Your task to perform on an android device: show emergency info Image 0: 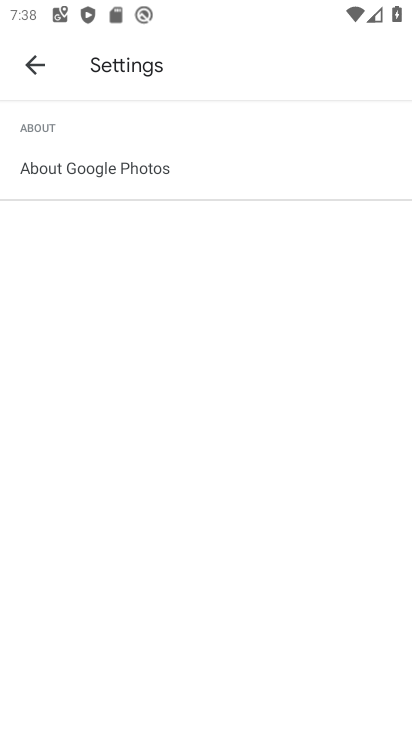
Step 0: press home button
Your task to perform on an android device: show emergency info Image 1: 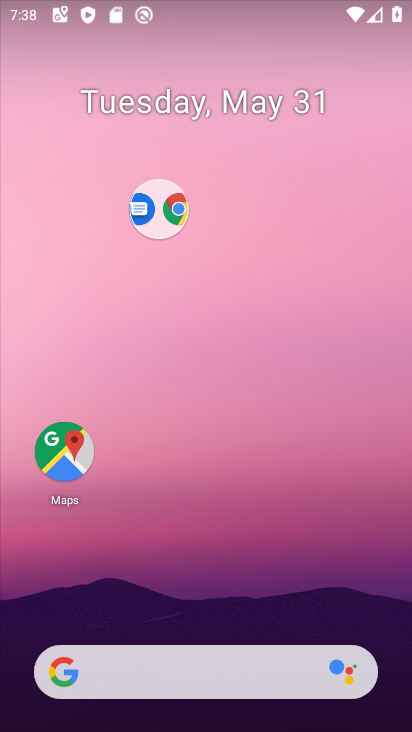
Step 1: drag from (190, 571) to (119, 280)
Your task to perform on an android device: show emergency info Image 2: 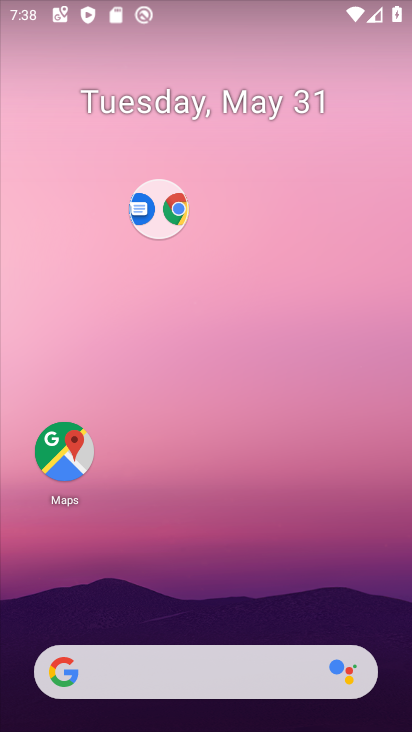
Step 2: drag from (167, 604) to (228, 134)
Your task to perform on an android device: show emergency info Image 3: 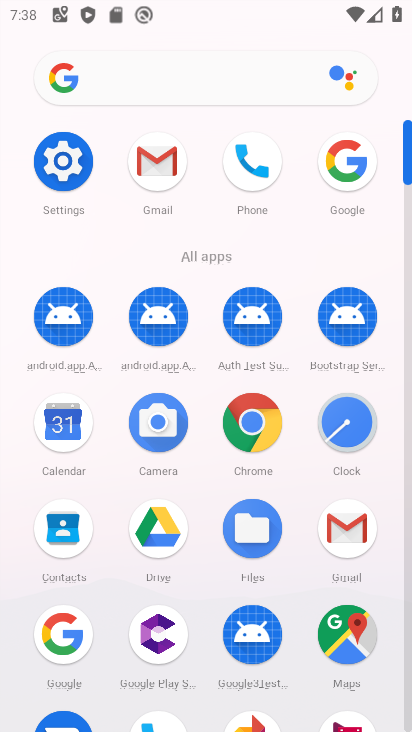
Step 3: click (49, 166)
Your task to perform on an android device: show emergency info Image 4: 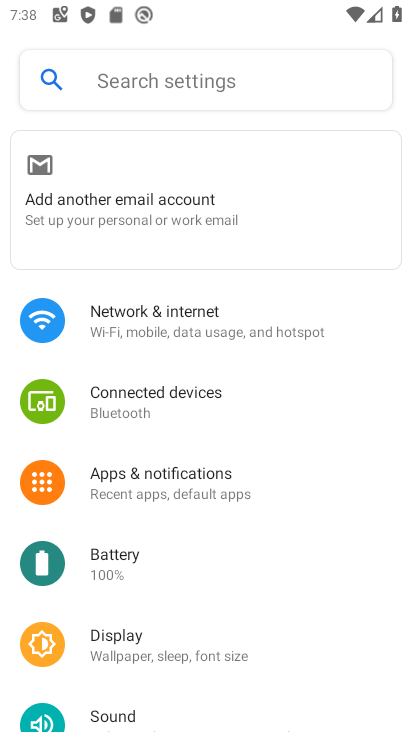
Step 4: drag from (163, 655) to (140, 288)
Your task to perform on an android device: show emergency info Image 5: 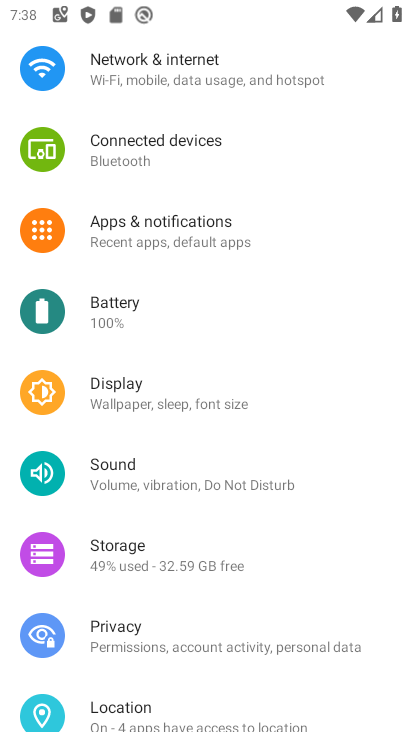
Step 5: drag from (171, 643) to (162, 242)
Your task to perform on an android device: show emergency info Image 6: 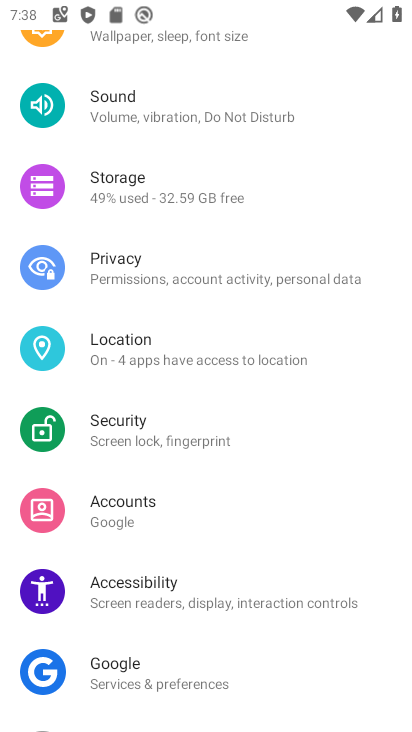
Step 6: drag from (161, 633) to (133, 260)
Your task to perform on an android device: show emergency info Image 7: 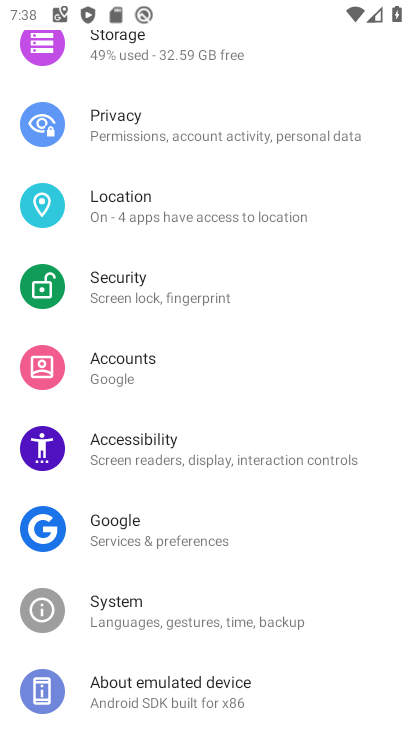
Step 7: click (121, 703)
Your task to perform on an android device: show emergency info Image 8: 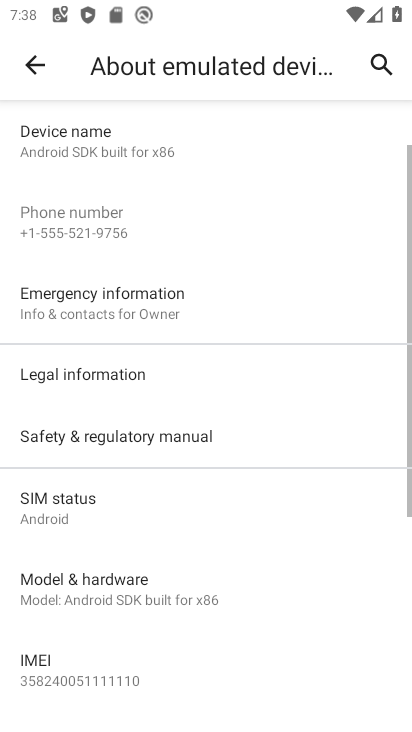
Step 8: click (99, 318)
Your task to perform on an android device: show emergency info Image 9: 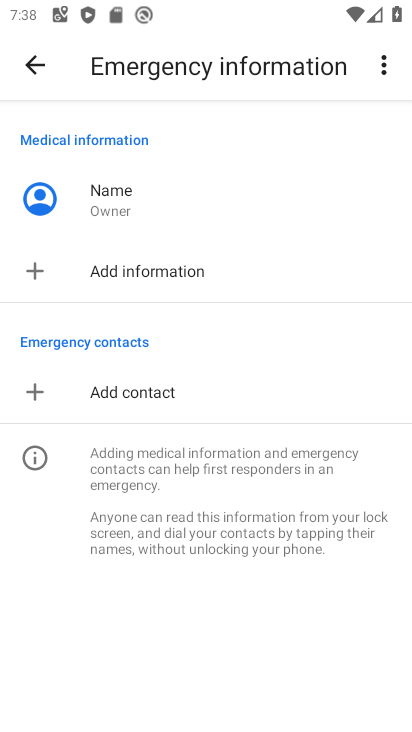
Step 9: task complete